Your task to perform on an android device: toggle priority inbox in the gmail app Image 0: 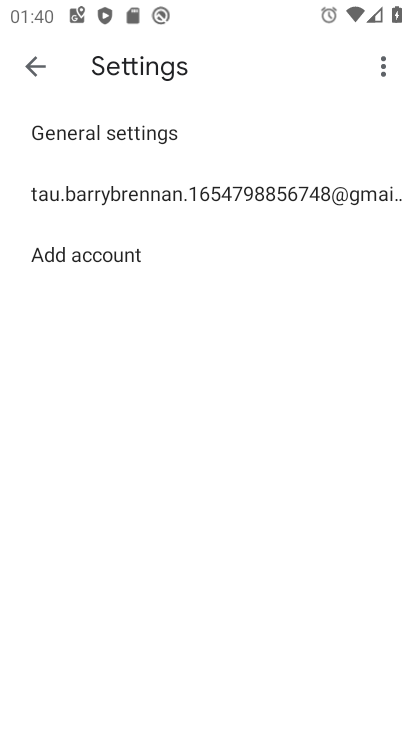
Step 0: press home button
Your task to perform on an android device: toggle priority inbox in the gmail app Image 1: 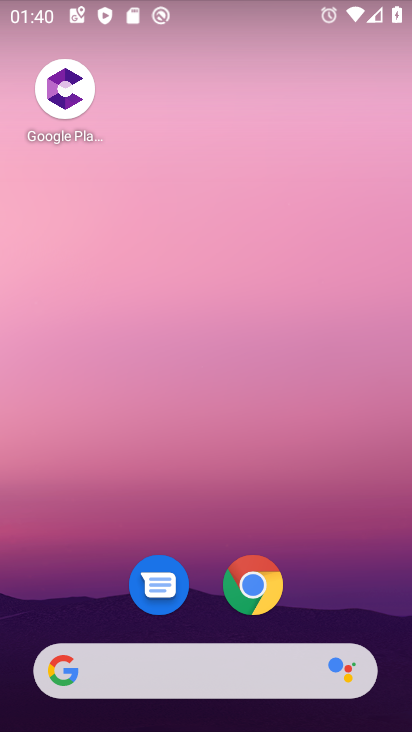
Step 1: drag from (323, 571) to (371, 90)
Your task to perform on an android device: toggle priority inbox in the gmail app Image 2: 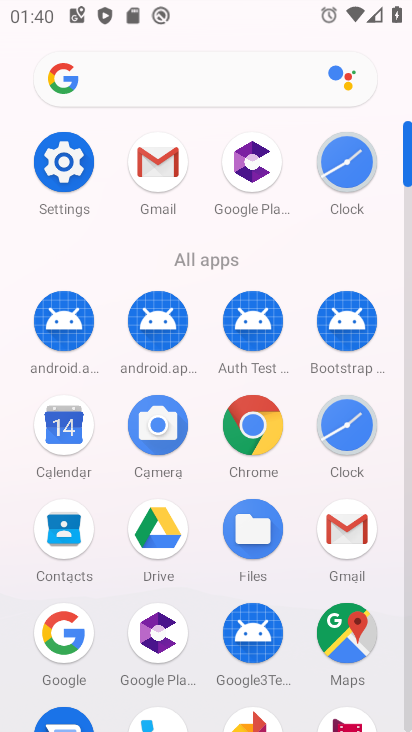
Step 2: click (163, 166)
Your task to perform on an android device: toggle priority inbox in the gmail app Image 3: 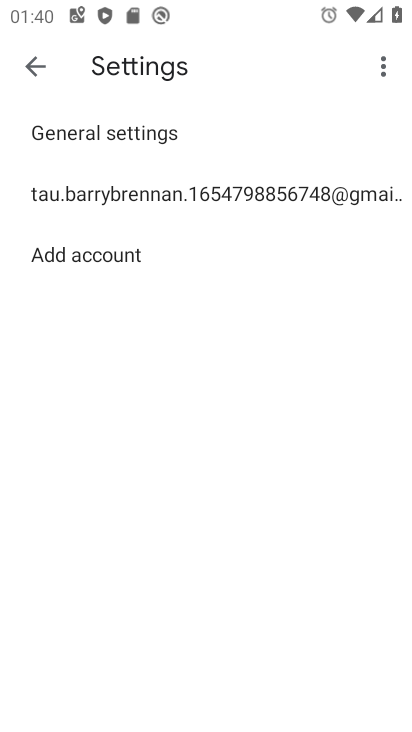
Step 3: click (165, 196)
Your task to perform on an android device: toggle priority inbox in the gmail app Image 4: 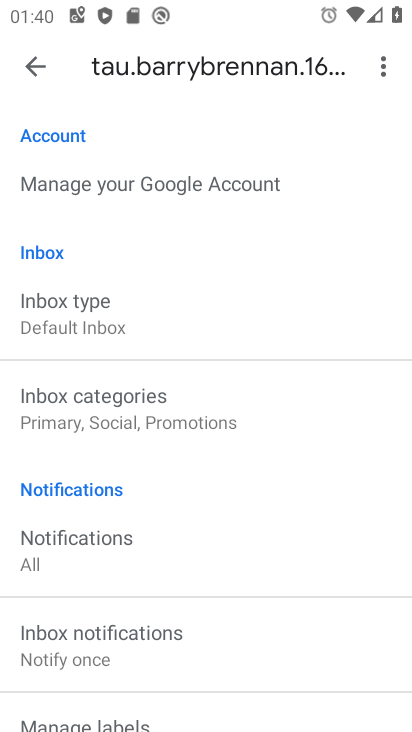
Step 4: click (77, 305)
Your task to perform on an android device: toggle priority inbox in the gmail app Image 5: 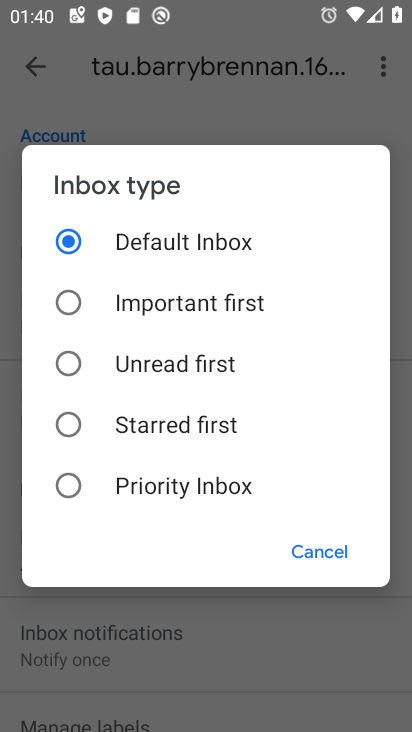
Step 5: click (59, 477)
Your task to perform on an android device: toggle priority inbox in the gmail app Image 6: 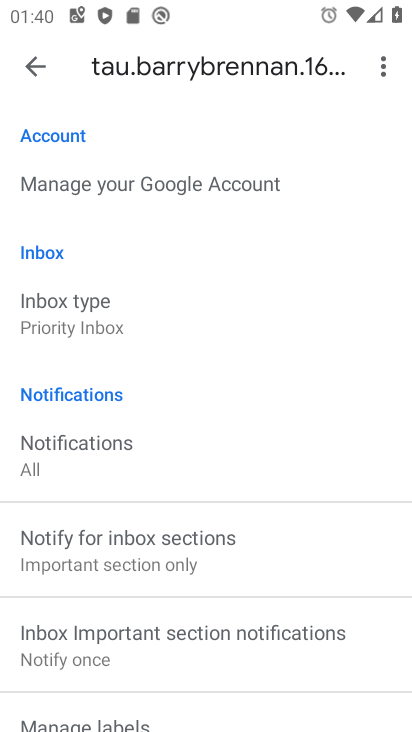
Step 6: task complete